Your task to perform on an android device: Do I have any events today? Image 0: 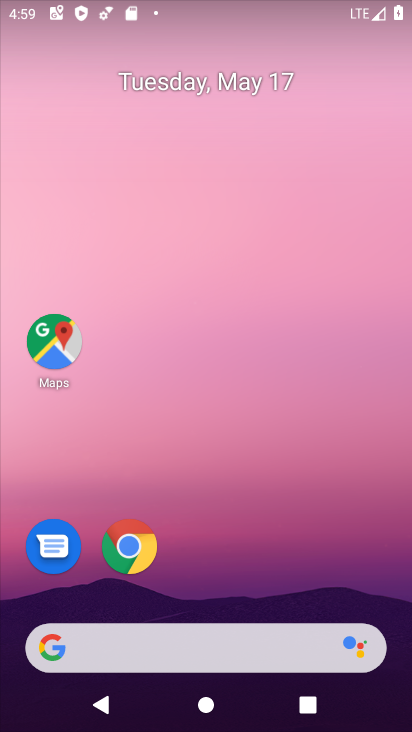
Step 0: drag from (231, 604) to (295, 21)
Your task to perform on an android device: Do I have any events today? Image 1: 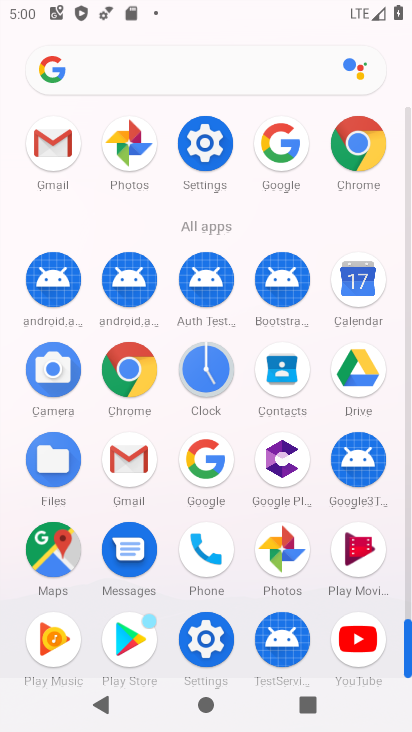
Step 1: click (354, 308)
Your task to perform on an android device: Do I have any events today? Image 2: 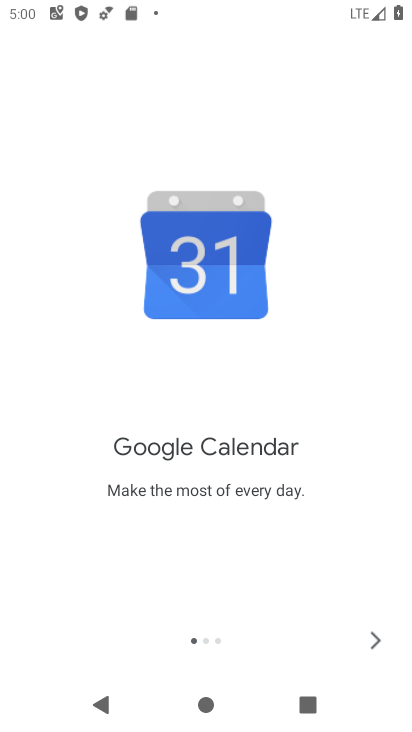
Step 2: click (368, 641)
Your task to perform on an android device: Do I have any events today? Image 3: 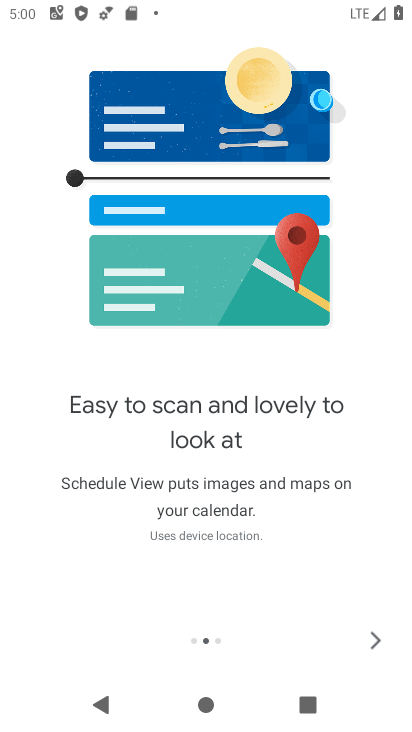
Step 3: click (371, 644)
Your task to perform on an android device: Do I have any events today? Image 4: 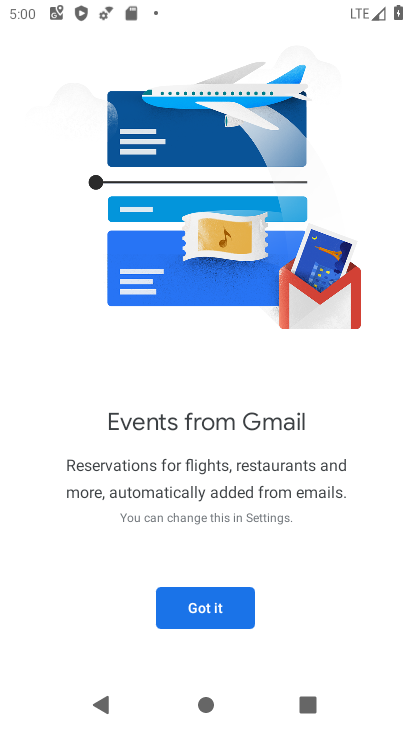
Step 4: click (210, 610)
Your task to perform on an android device: Do I have any events today? Image 5: 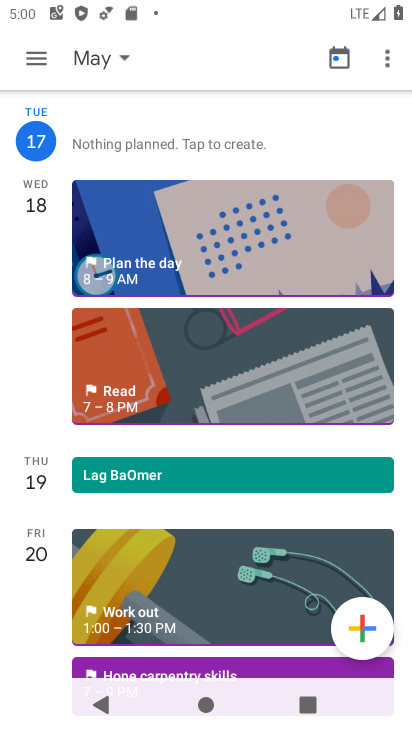
Step 5: click (81, 52)
Your task to perform on an android device: Do I have any events today? Image 6: 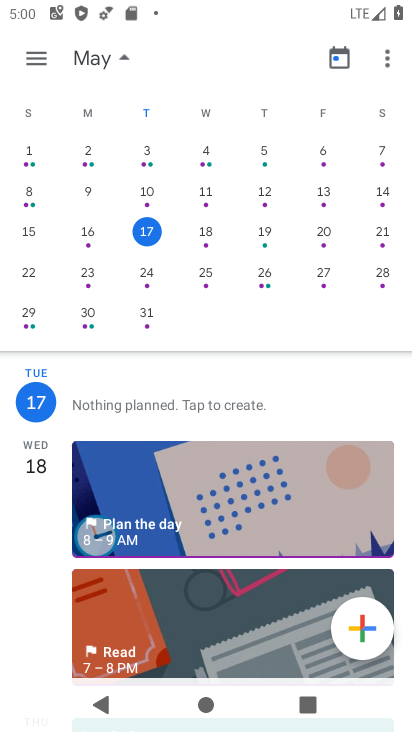
Step 6: task complete